Your task to perform on an android device: turn off location history Image 0: 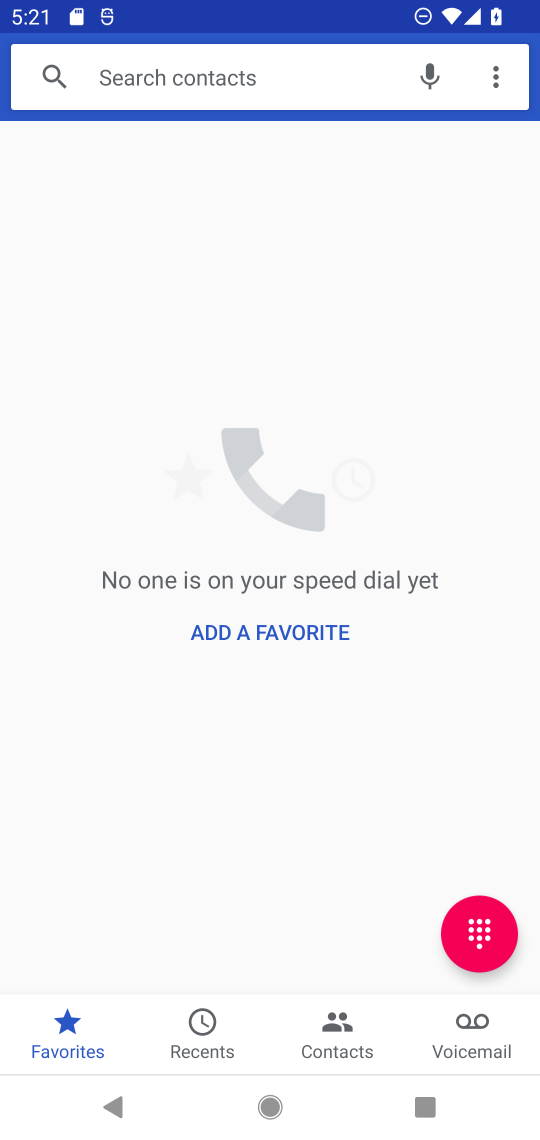
Step 0: press home button
Your task to perform on an android device: turn off location history Image 1: 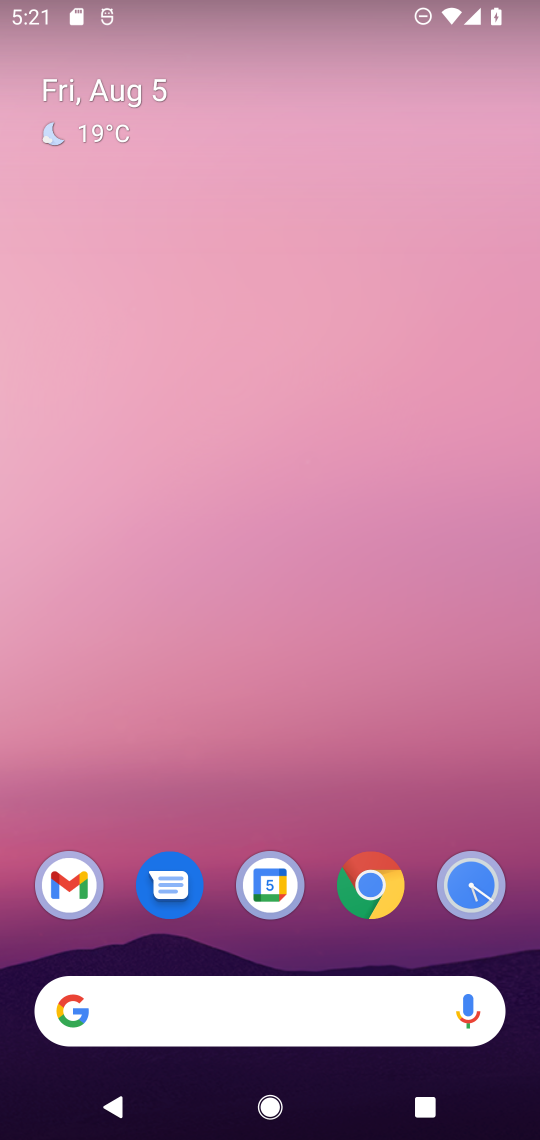
Step 1: drag from (329, 951) to (248, 162)
Your task to perform on an android device: turn off location history Image 2: 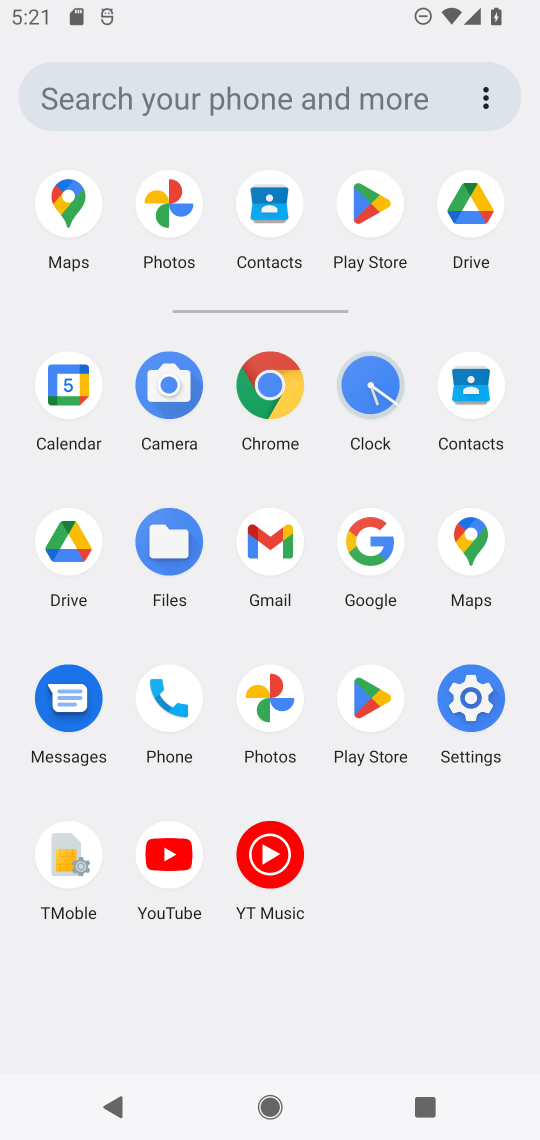
Step 2: click (477, 694)
Your task to perform on an android device: turn off location history Image 3: 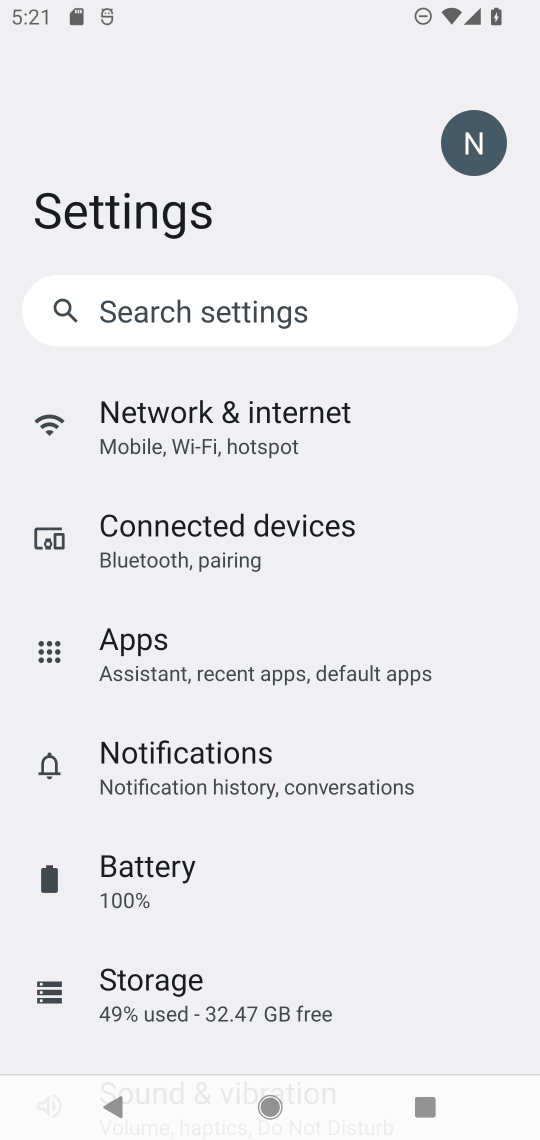
Step 3: drag from (176, 904) to (173, 454)
Your task to perform on an android device: turn off location history Image 4: 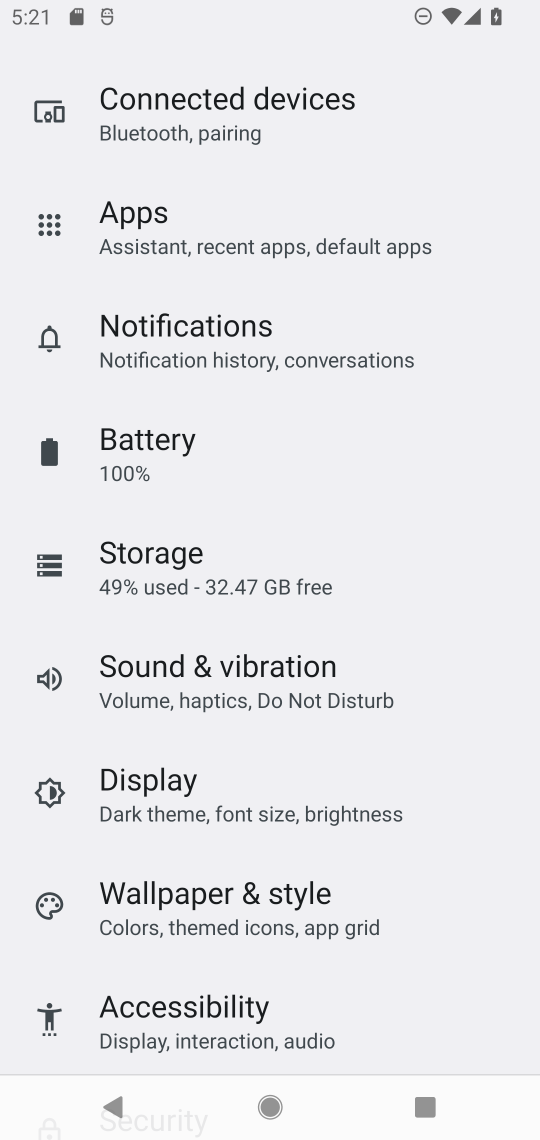
Step 4: drag from (188, 967) to (188, 474)
Your task to perform on an android device: turn off location history Image 5: 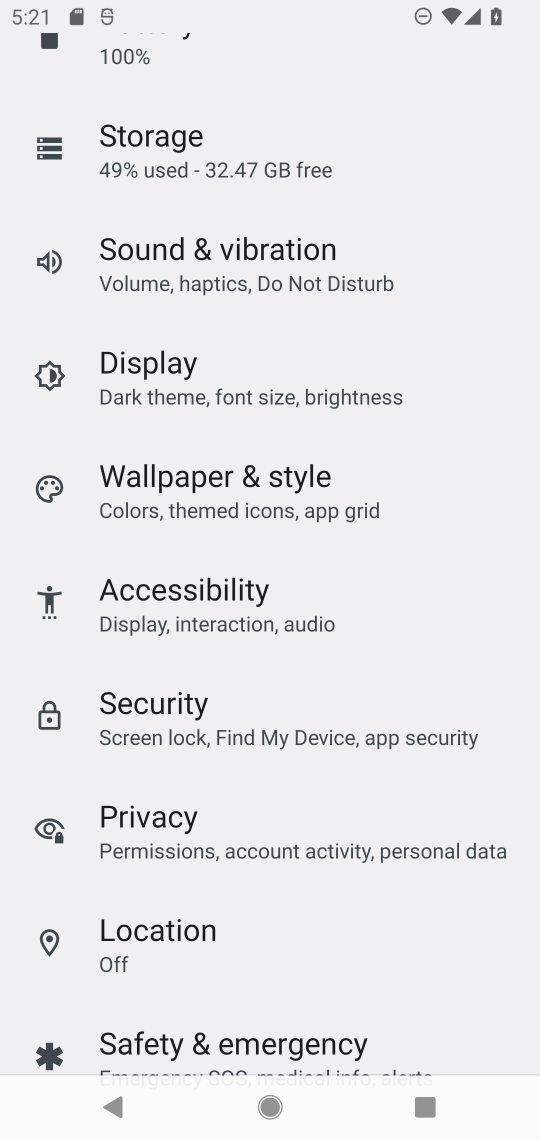
Step 5: click (144, 925)
Your task to perform on an android device: turn off location history Image 6: 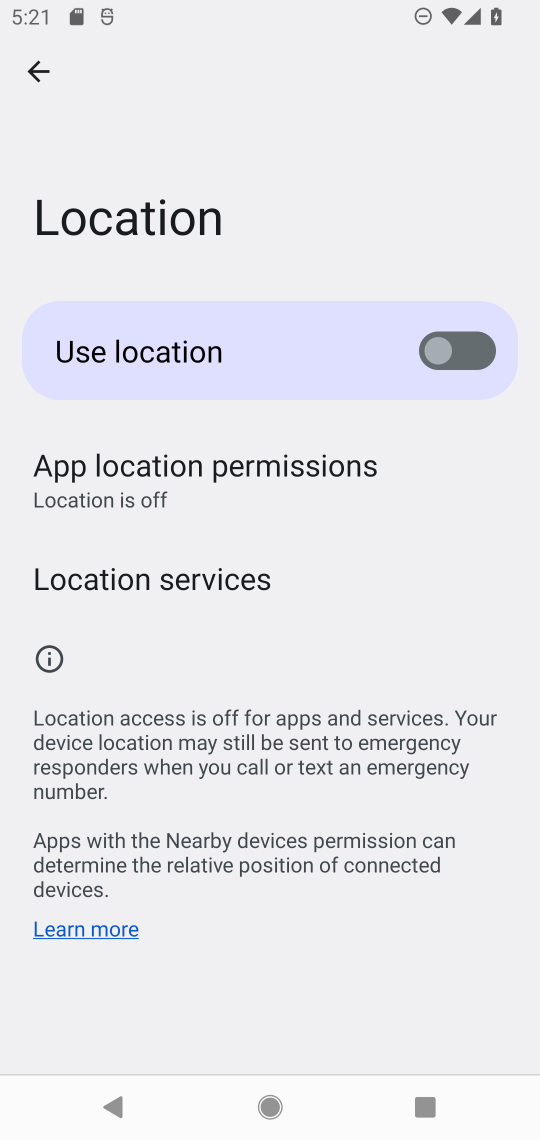
Step 6: task complete